Your task to perform on an android device: Go to Reddit.com Image 0: 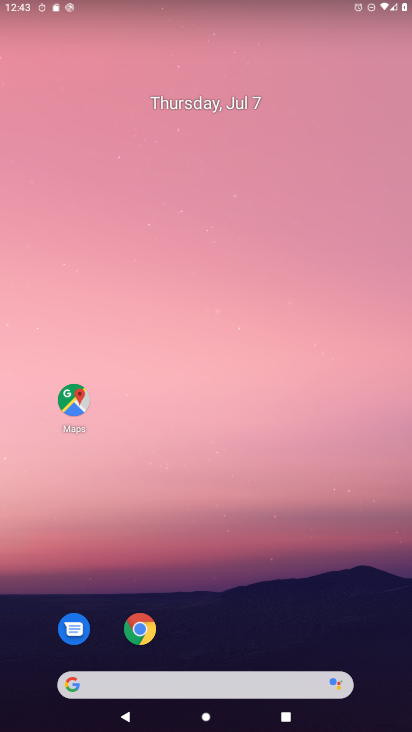
Step 0: click (133, 625)
Your task to perform on an android device: Go to Reddit.com Image 1: 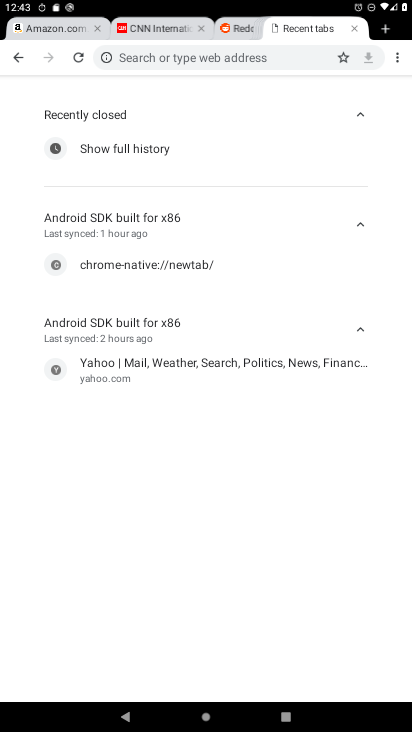
Step 1: click (383, 26)
Your task to perform on an android device: Go to Reddit.com Image 2: 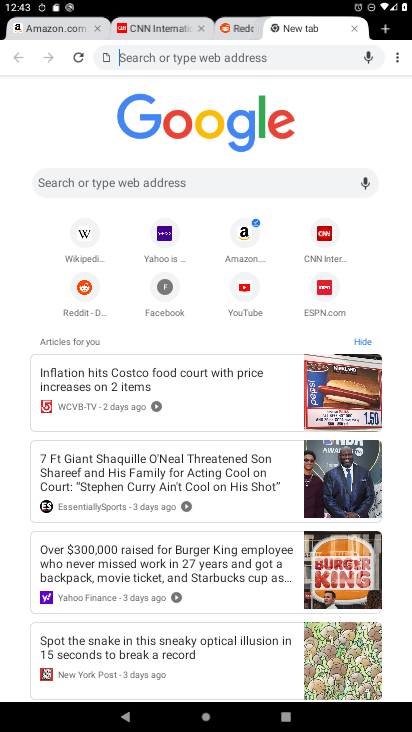
Step 2: click (85, 294)
Your task to perform on an android device: Go to Reddit.com Image 3: 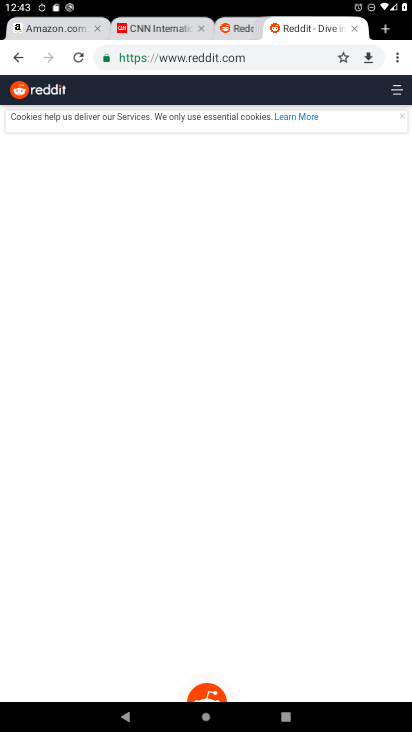
Step 3: task complete